Your task to perform on an android device: search for starred emails in the gmail app Image 0: 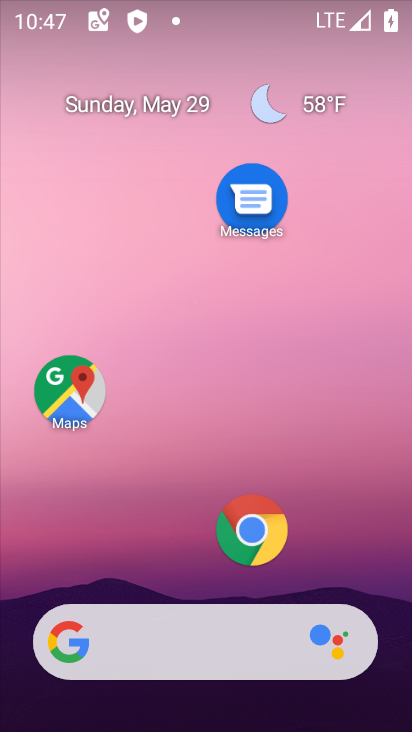
Step 0: drag from (162, 564) to (179, 44)
Your task to perform on an android device: search for starred emails in the gmail app Image 1: 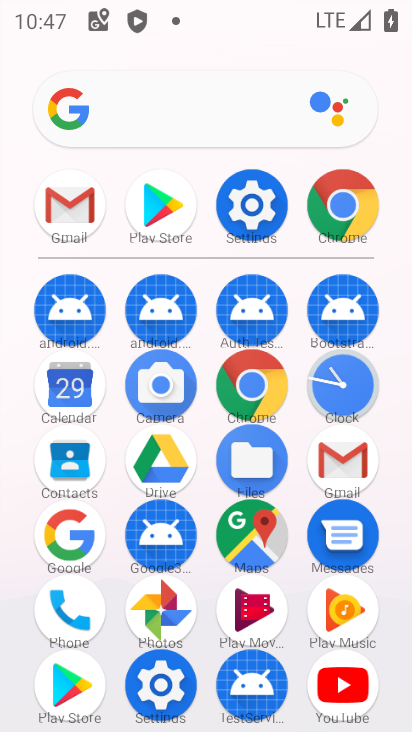
Step 1: click (351, 457)
Your task to perform on an android device: search for starred emails in the gmail app Image 2: 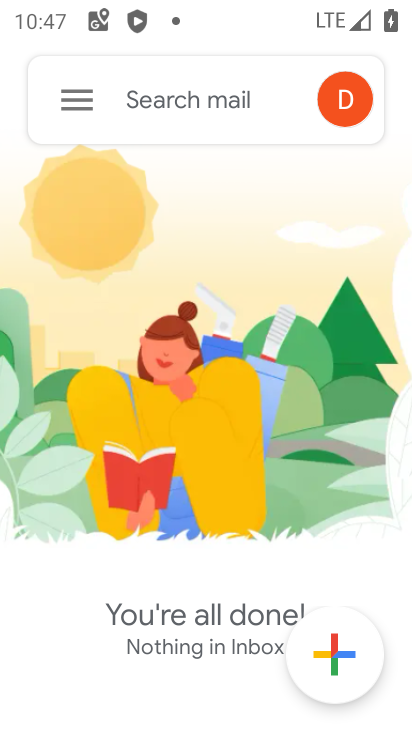
Step 2: click (70, 84)
Your task to perform on an android device: search for starred emails in the gmail app Image 3: 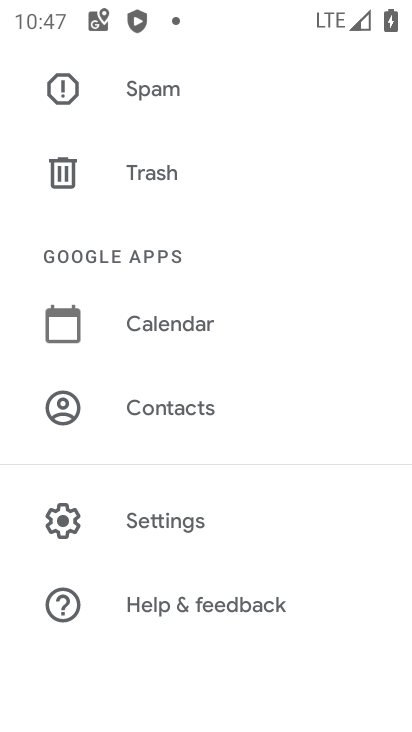
Step 3: drag from (197, 170) to (184, 601)
Your task to perform on an android device: search for starred emails in the gmail app Image 4: 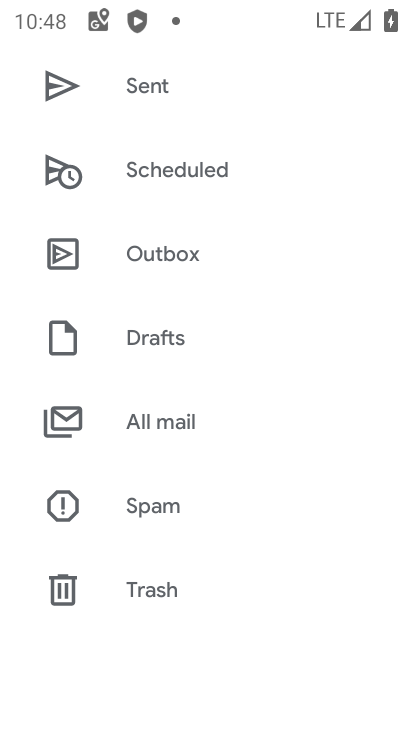
Step 4: drag from (205, 189) to (188, 527)
Your task to perform on an android device: search for starred emails in the gmail app Image 5: 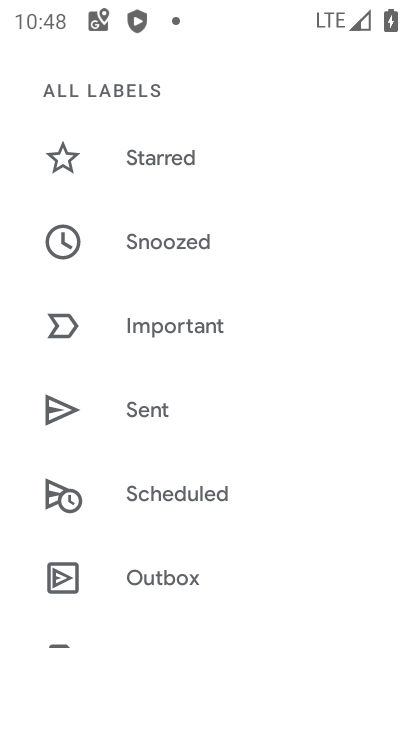
Step 5: click (187, 163)
Your task to perform on an android device: search for starred emails in the gmail app Image 6: 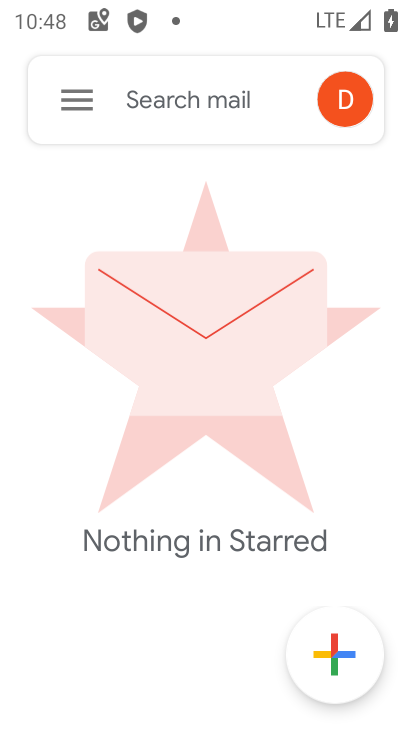
Step 6: task complete